Your task to perform on an android device: Open display settings Image 0: 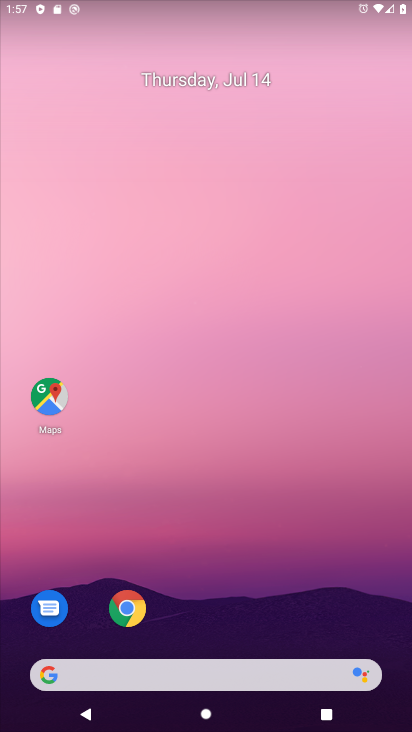
Step 0: drag from (235, 629) to (236, 108)
Your task to perform on an android device: Open display settings Image 1: 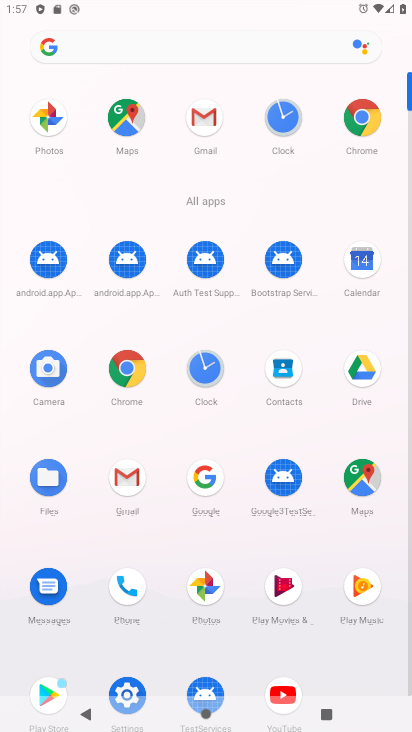
Step 1: click (132, 684)
Your task to perform on an android device: Open display settings Image 2: 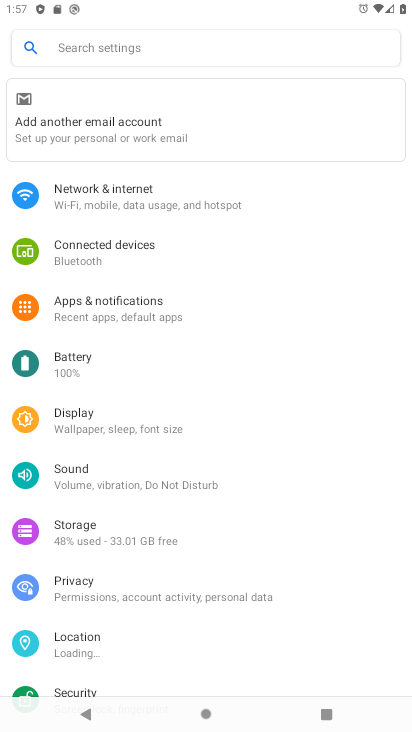
Step 2: click (76, 418)
Your task to perform on an android device: Open display settings Image 3: 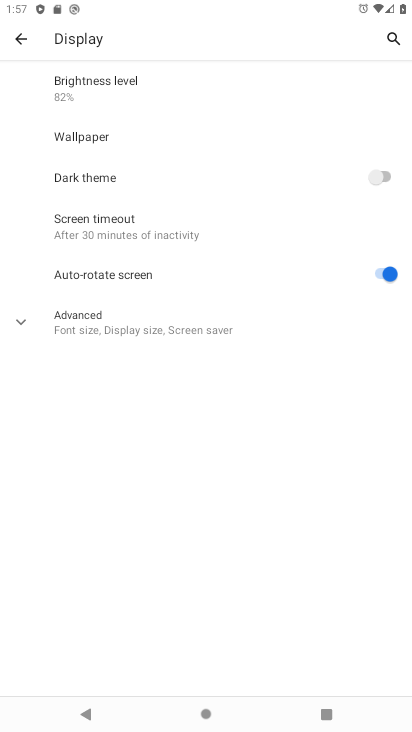
Step 3: task complete